Your task to perform on an android device: open a new tab in the chrome app Image 0: 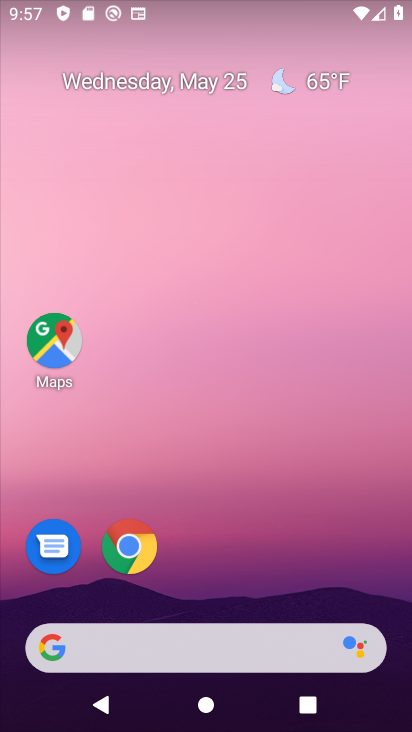
Step 0: drag from (196, 264) to (175, 1)
Your task to perform on an android device: open a new tab in the chrome app Image 1: 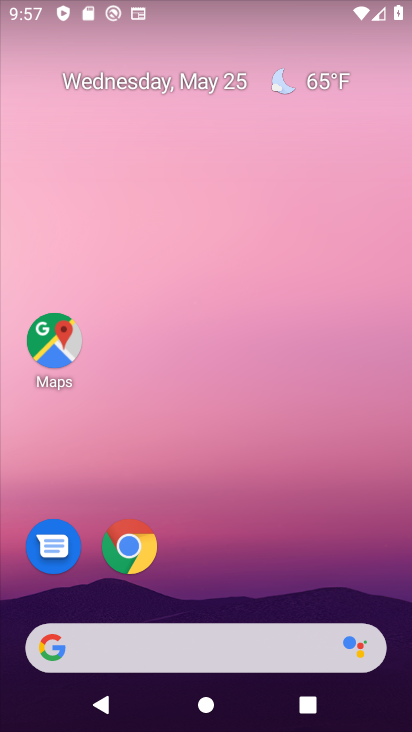
Step 1: drag from (374, 548) to (257, 12)
Your task to perform on an android device: open a new tab in the chrome app Image 2: 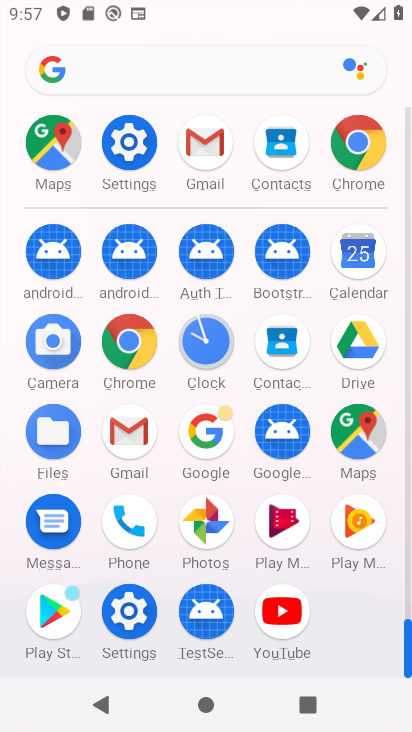
Step 2: drag from (5, 551) to (3, 250)
Your task to perform on an android device: open a new tab in the chrome app Image 3: 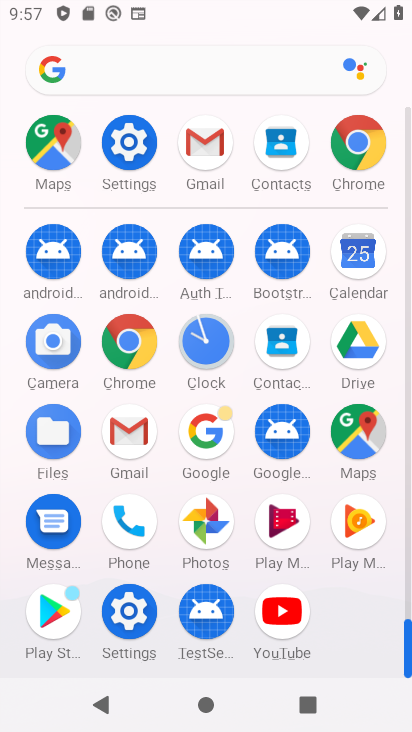
Step 3: click (131, 338)
Your task to perform on an android device: open a new tab in the chrome app Image 4: 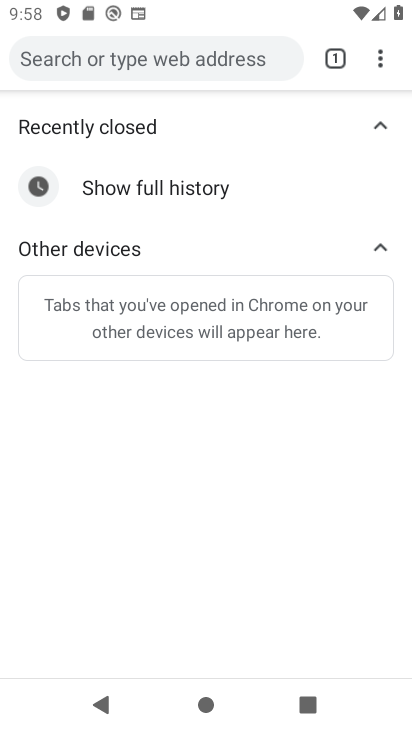
Step 4: task complete